Your task to perform on an android device: Open the map Image 0: 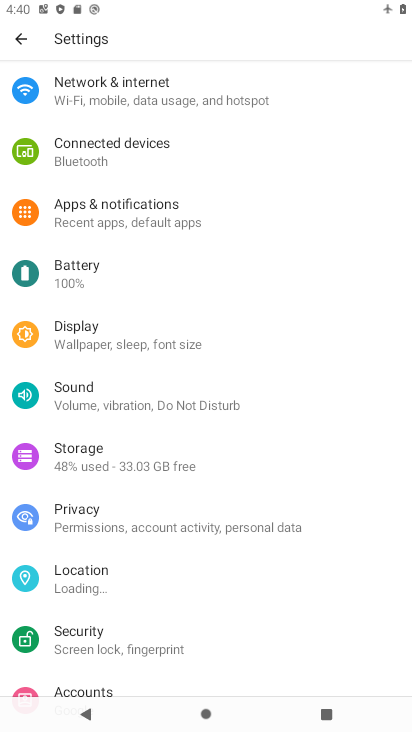
Step 0: press home button
Your task to perform on an android device: Open the map Image 1: 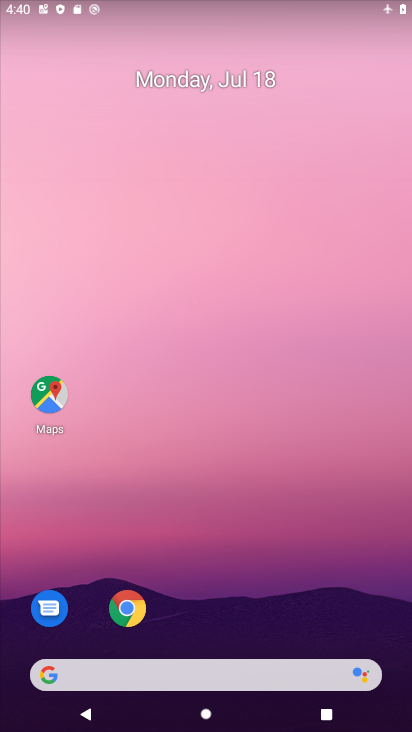
Step 1: drag from (218, 550) to (319, 51)
Your task to perform on an android device: Open the map Image 2: 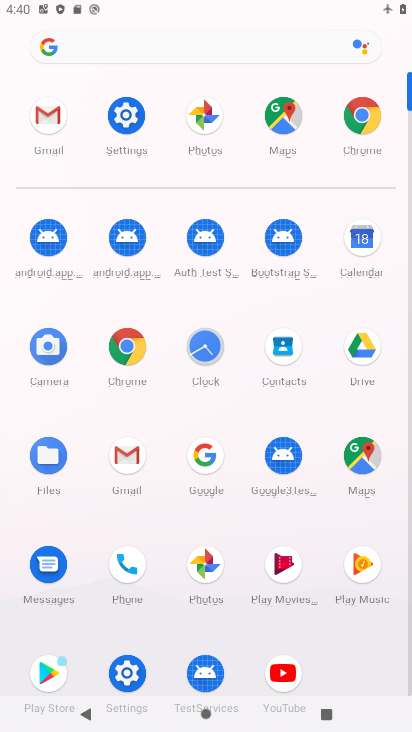
Step 2: click (282, 111)
Your task to perform on an android device: Open the map Image 3: 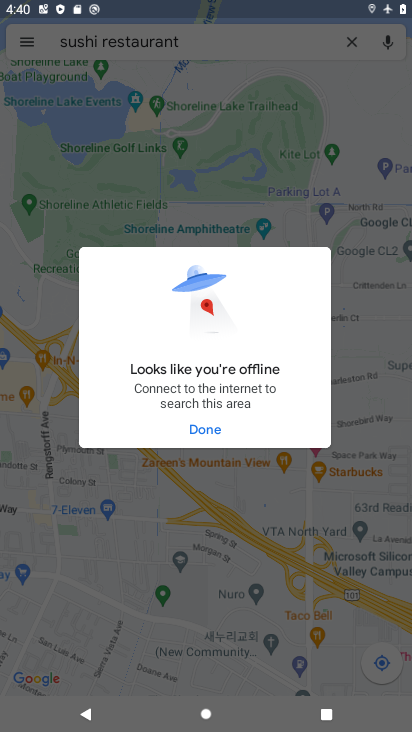
Step 3: task complete